Your task to perform on an android device: turn off wifi Image 0: 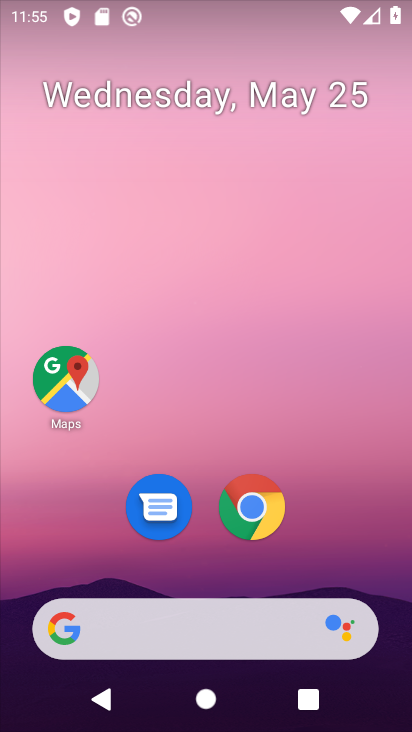
Step 0: drag from (221, 582) to (225, 170)
Your task to perform on an android device: turn off wifi Image 1: 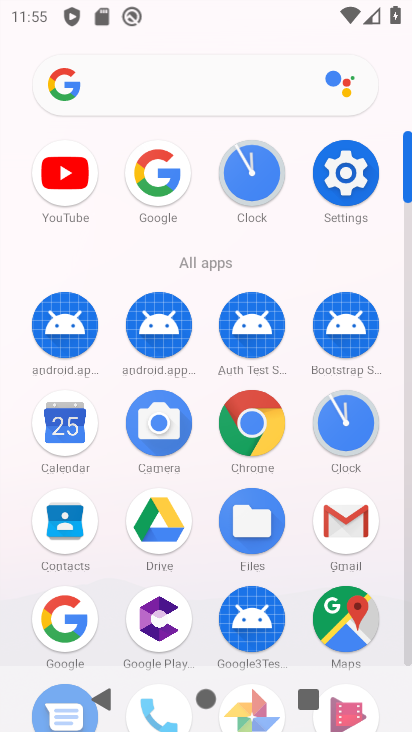
Step 1: click (321, 168)
Your task to perform on an android device: turn off wifi Image 2: 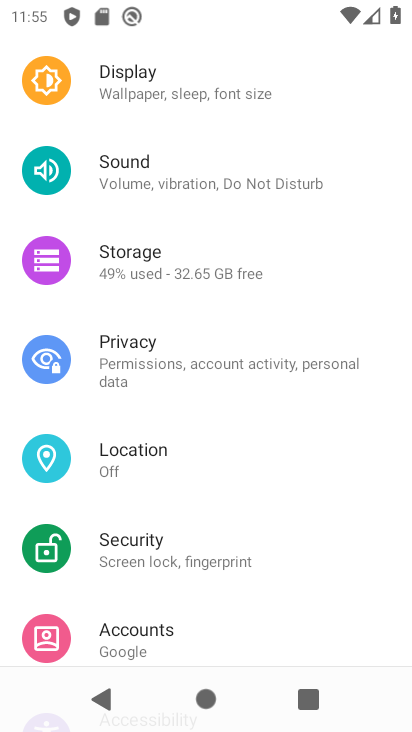
Step 2: drag from (161, 144) to (169, 568)
Your task to perform on an android device: turn off wifi Image 3: 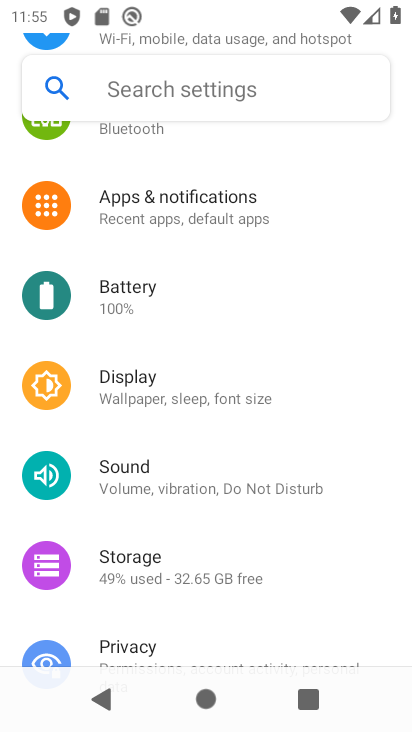
Step 3: drag from (210, 204) to (210, 575)
Your task to perform on an android device: turn off wifi Image 4: 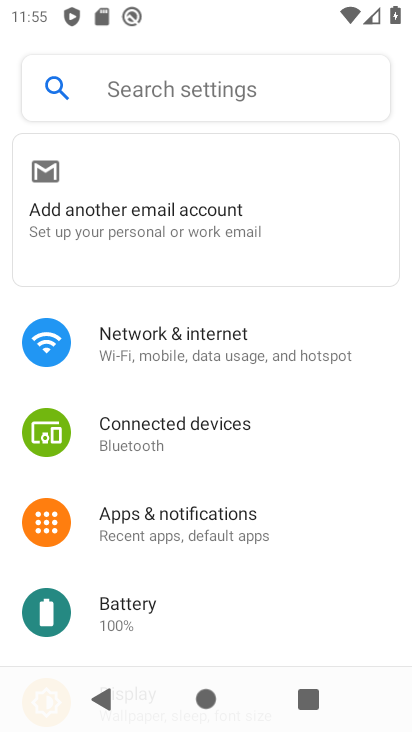
Step 4: click (188, 321)
Your task to perform on an android device: turn off wifi Image 5: 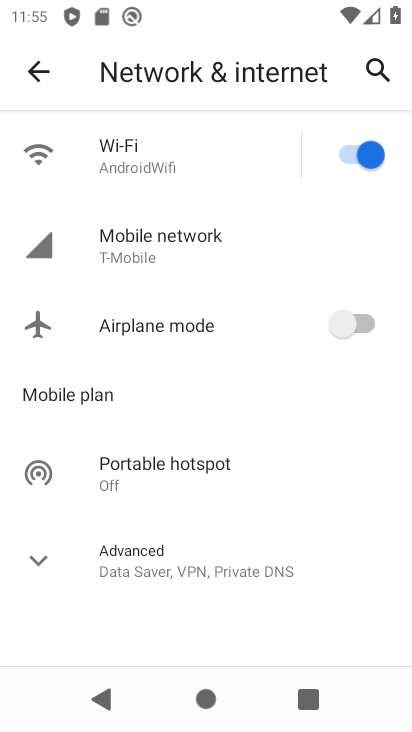
Step 5: click (347, 142)
Your task to perform on an android device: turn off wifi Image 6: 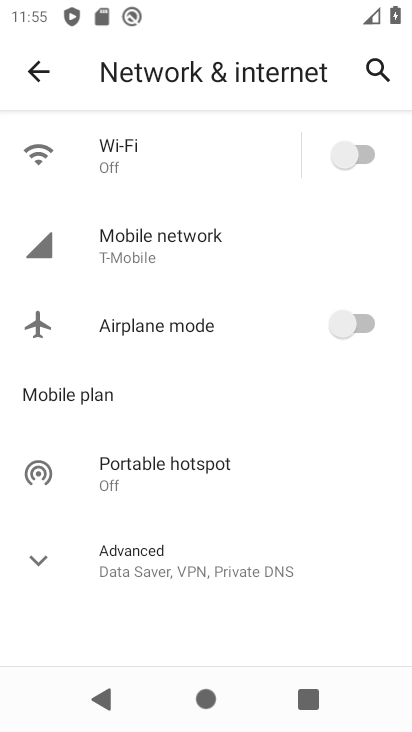
Step 6: task complete